Your task to perform on an android device: Open battery settings Image 0: 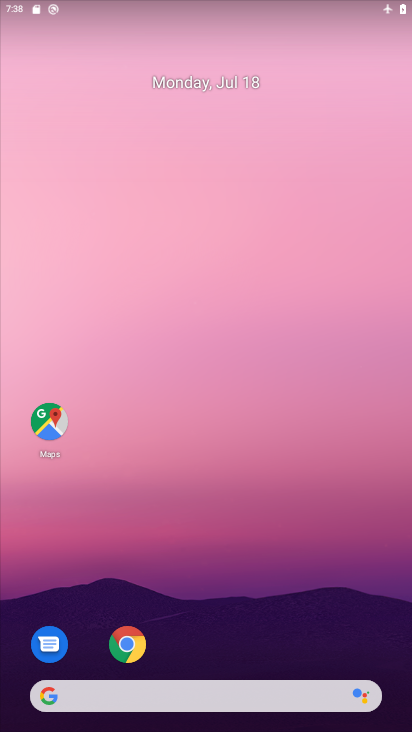
Step 0: drag from (327, 616) to (343, 145)
Your task to perform on an android device: Open battery settings Image 1: 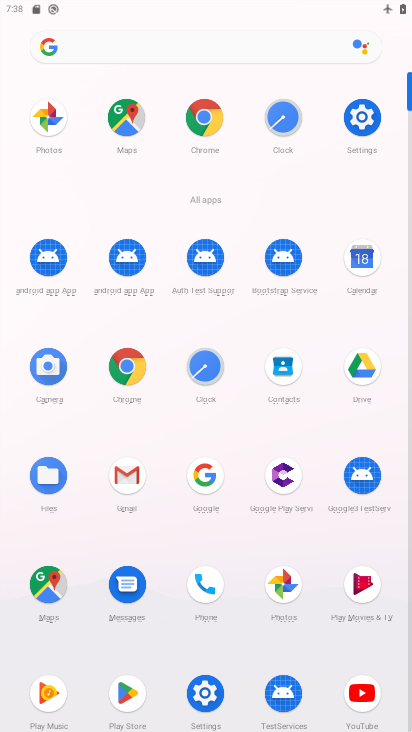
Step 1: click (360, 118)
Your task to perform on an android device: Open battery settings Image 2: 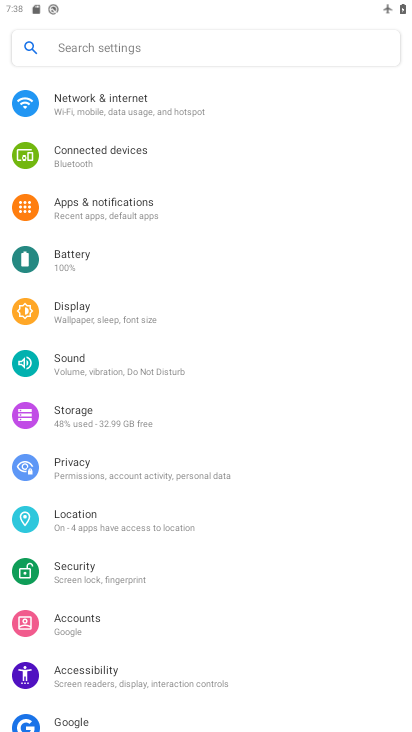
Step 2: drag from (342, 207) to (331, 333)
Your task to perform on an android device: Open battery settings Image 3: 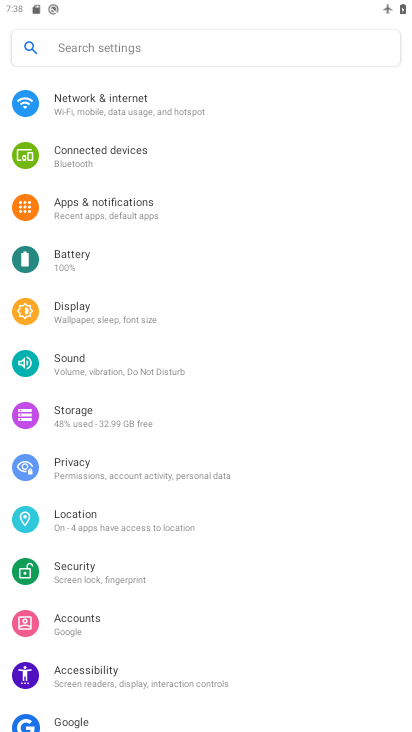
Step 3: drag from (323, 423) to (358, 295)
Your task to perform on an android device: Open battery settings Image 4: 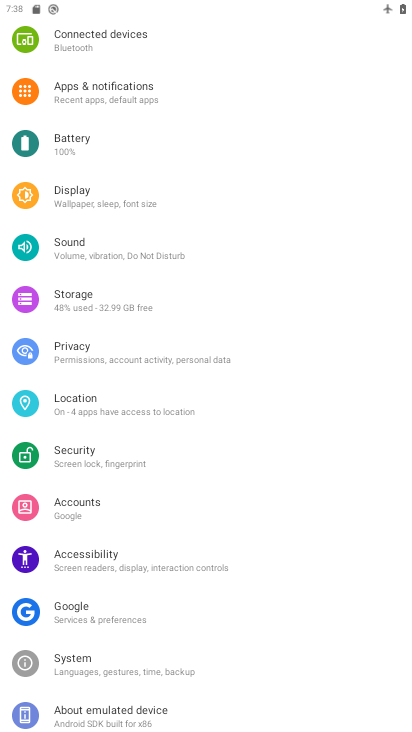
Step 4: drag from (324, 404) to (374, 215)
Your task to perform on an android device: Open battery settings Image 5: 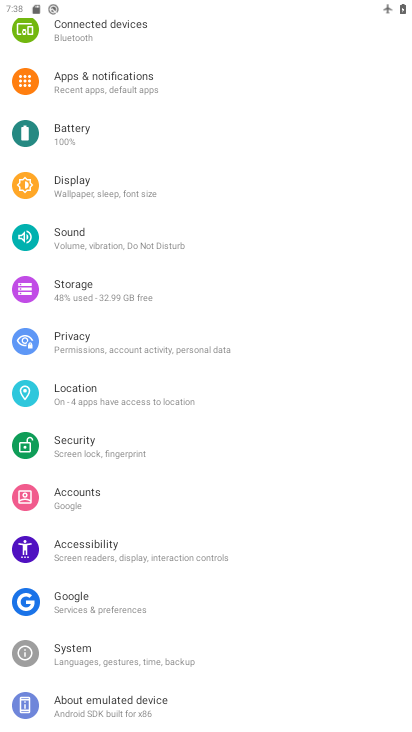
Step 5: drag from (344, 244) to (361, 446)
Your task to perform on an android device: Open battery settings Image 6: 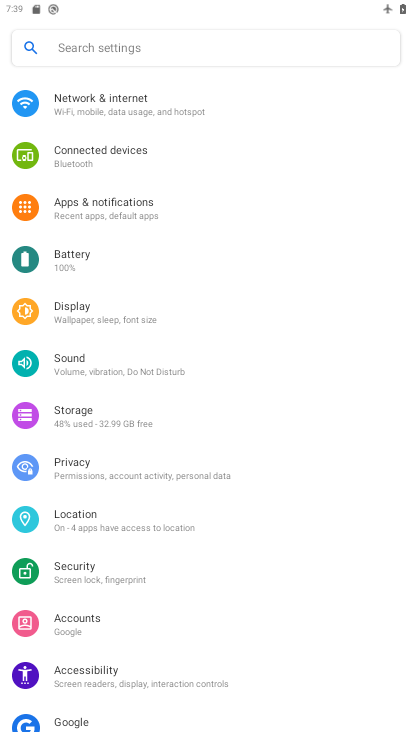
Step 6: drag from (337, 236) to (335, 356)
Your task to perform on an android device: Open battery settings Image 7: 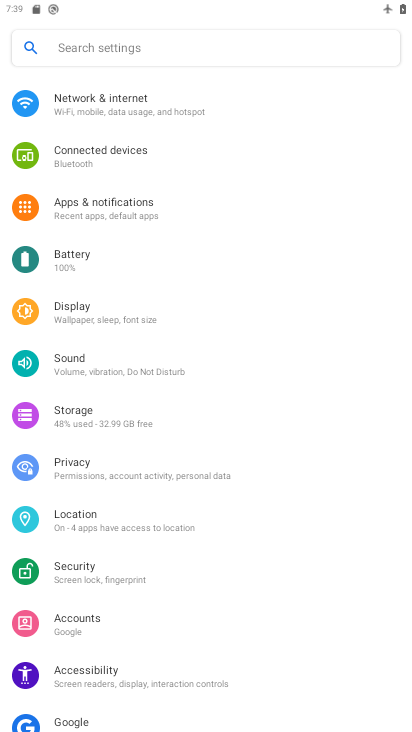
Step 7: click (131, 264)
Your task to perform on an android device: Open battery settings Image 8: 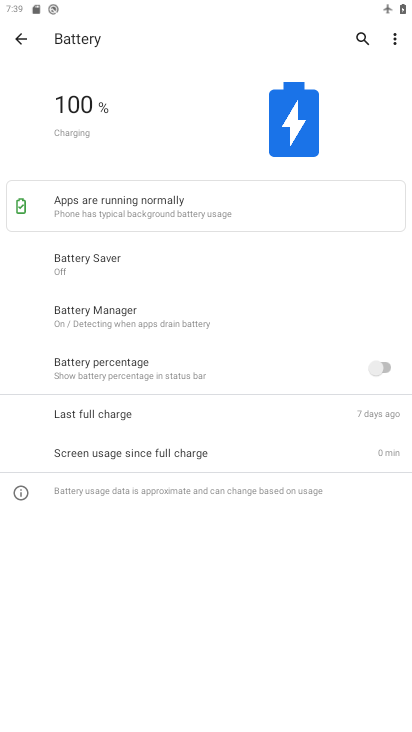
Step 8: task complete